Your task to perform on an android device: change the clock display to digital Image 0: 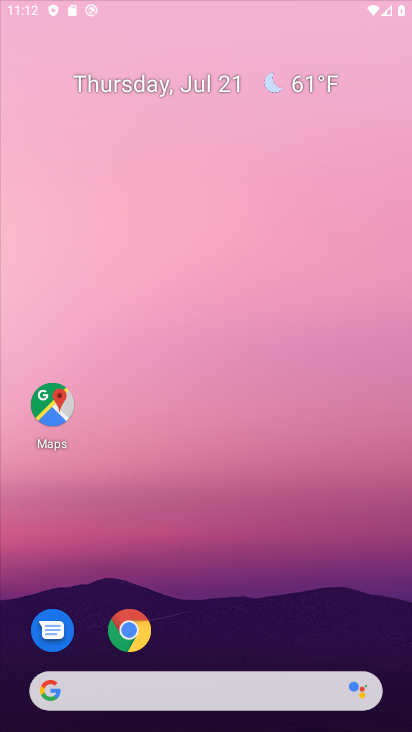
Step 0: click (208, 267)
Your task to perform on an android device: change the clock display to digital Image 1: 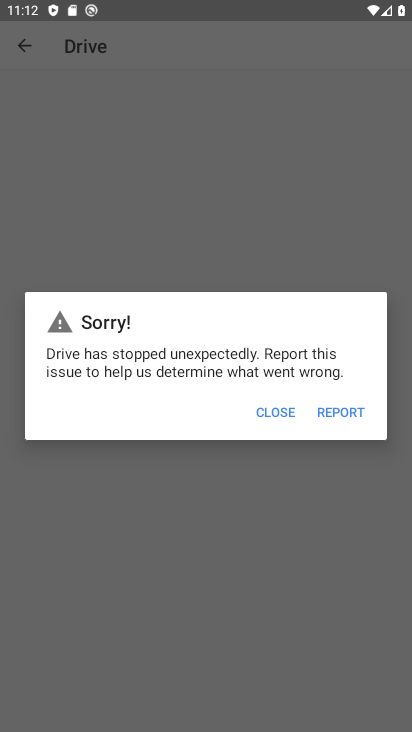
Step 1: press home button
Your task to perform on an android device: change the clock display to digital Image 2: 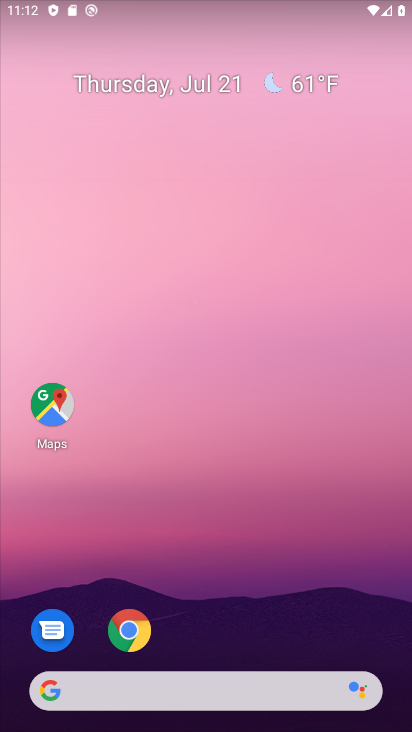
Step 2: drag from (161, 669) to (164, 182)
Your task to perform on an android device: change the clock display to digital Image 3: 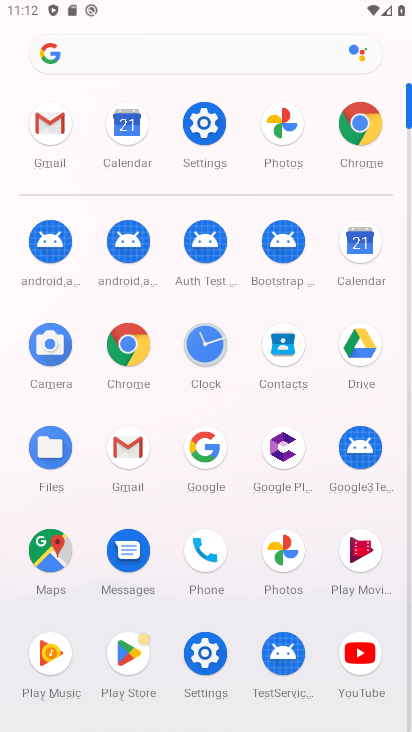
Step 3: click (217, 355)
Your task to perform on an android device: change the clock display to digital Image 4: 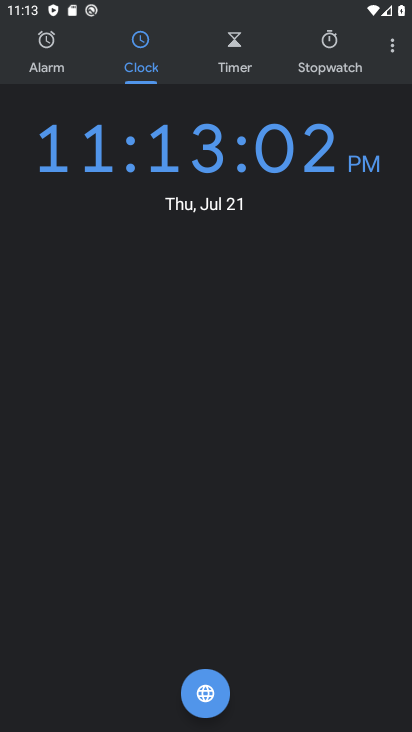
Step 4: click (384, 54)
Your task to perform on an android device: change the clock display to digital Image 5: 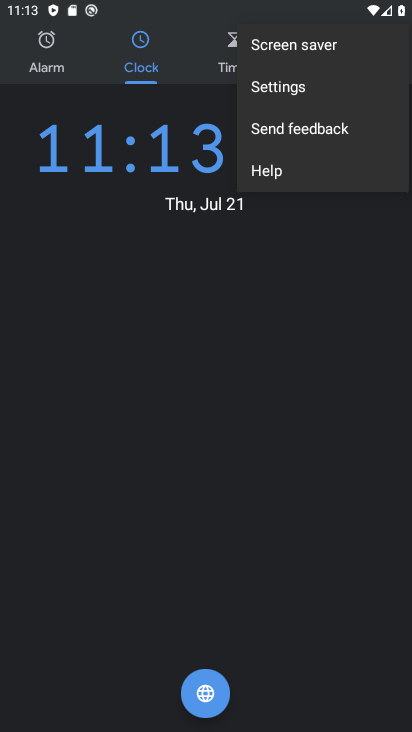
Step 5: click (301, 86)
Your task to perform on an android device: change the clock display to digital Image 6: 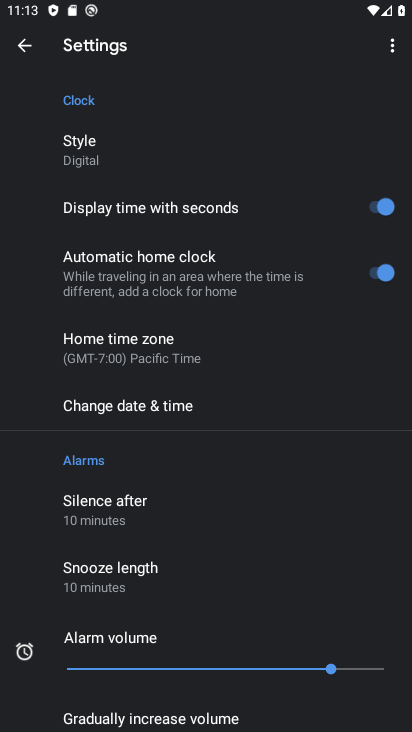
Step 6: task complete